Your task to perform on an android device: turn off location history Image 0: 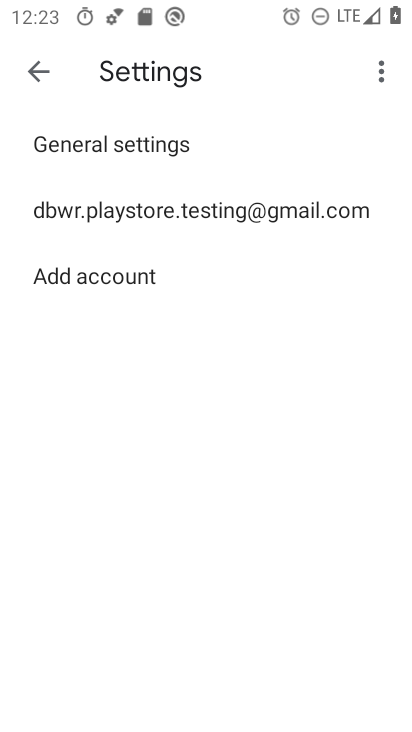
Step 0: press home button
Your task to perform on an android device: turn off location history Image 1: 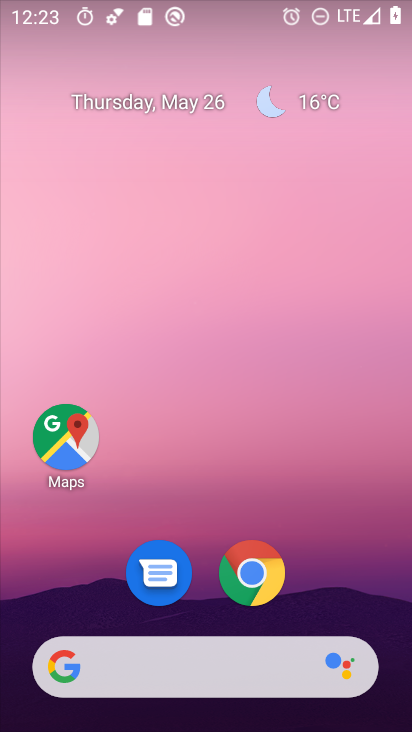
Step 1: click (78, 428)
Your task to perform on an android device: turn off location history Image 2: 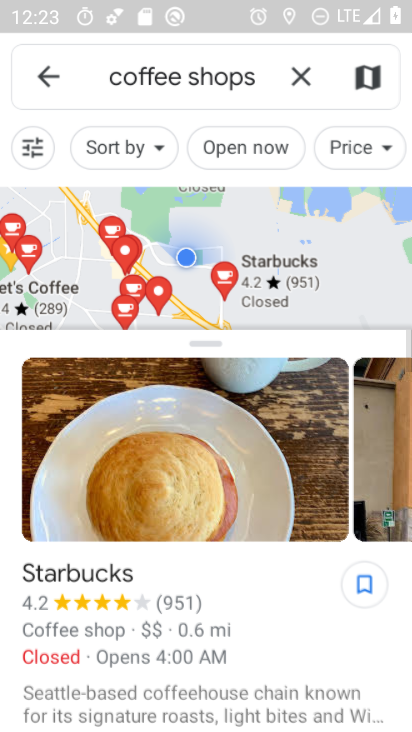
Step 2: click (303, 83)
Your task to perform on an android device: turn off location history Image 3: 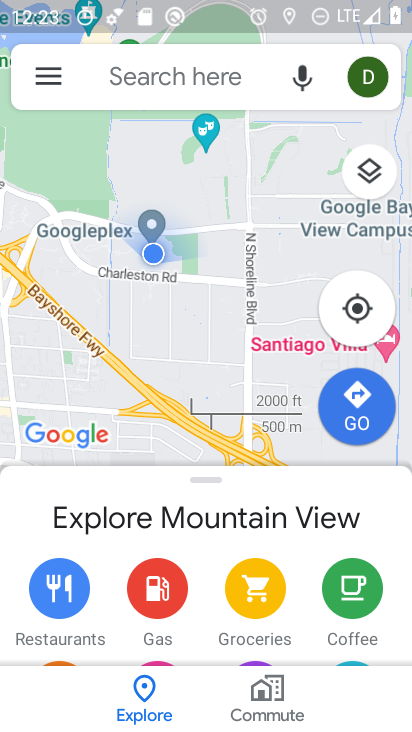
Step 3: click (43, 76)
Your task to perform on an android device: turn off location history Image 4: 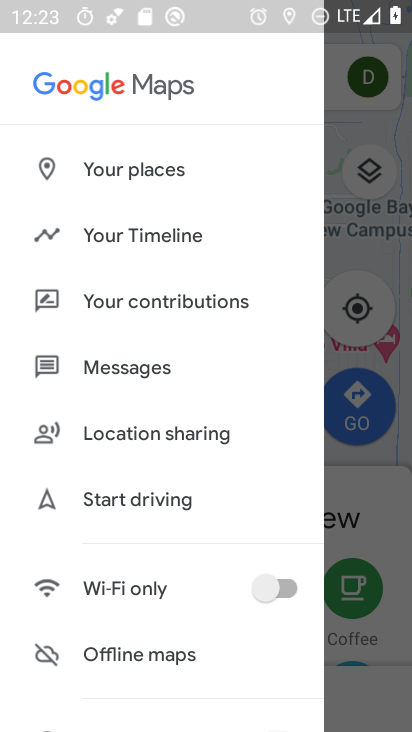
Step 4: click (130, 236)
Your task to perform on an android device: turn off location history Image 5: 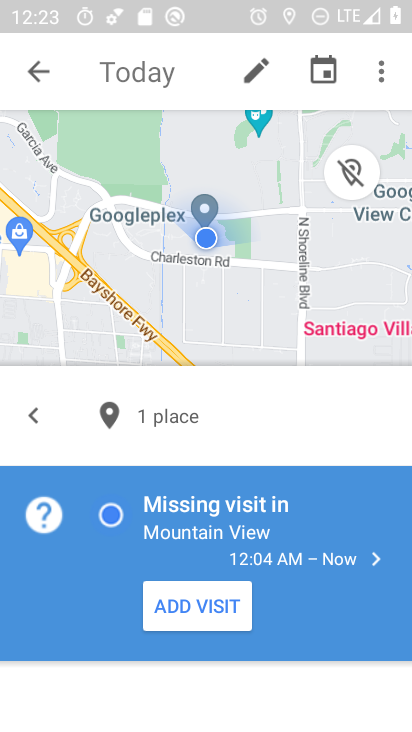
Step 5: click (387, 65)
Your task to perform on an android device: turn off location history Image 6: 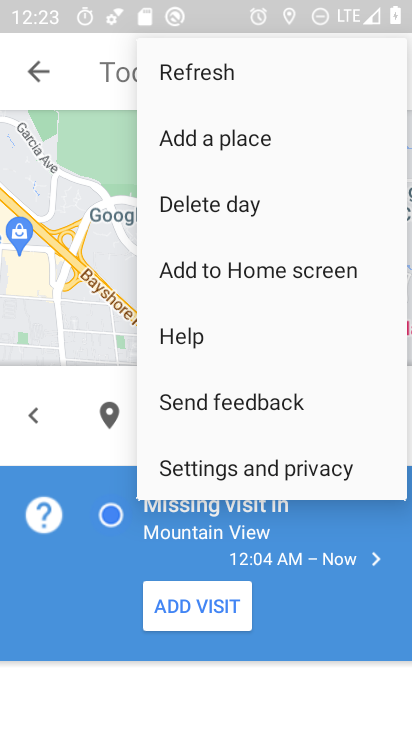
Step 6: click (223, 475)
Your task to perform on an android device: turn off location history Image 7: 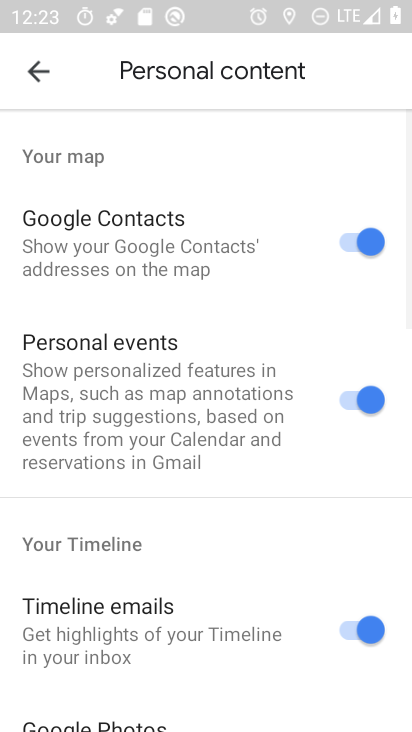
Step 7: drag from (152, 500) to (127, 122)
Your task to perform on an android device: turn off location history Image 8: 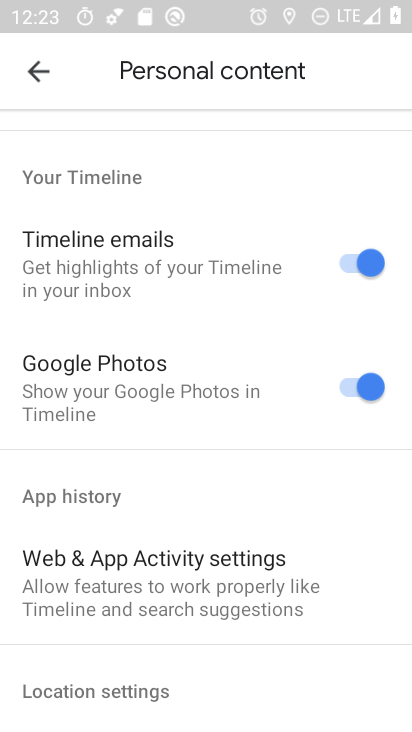
Step 8: drag from (96, 509) to (108, 68)
Your task to perform on an android device: turn off location history Image 9: 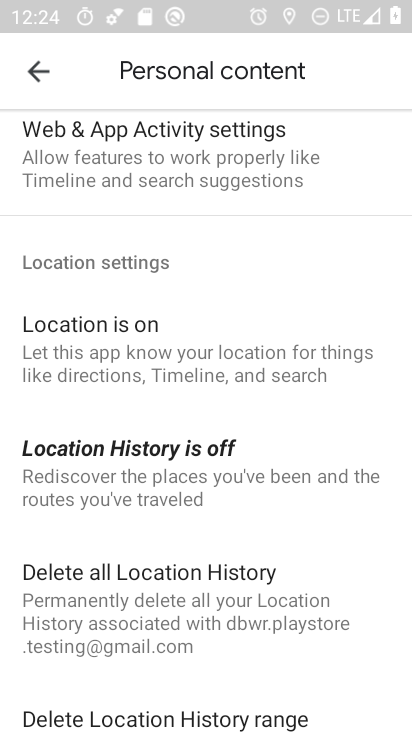
Step 9: drag from (93, 574) to (78, 242)
Your task to perform on an android device: turn off location history Image 10: 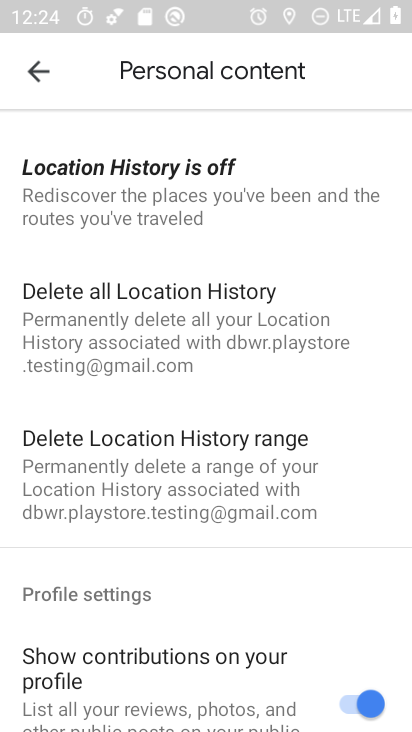
Step 10: click (125, 177)
Your task to perform on an android device: turn off location history Image 11: 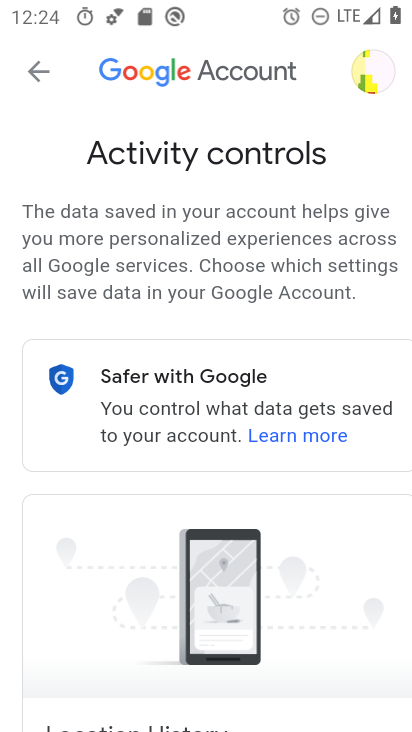
Step 11: task complete